Your task to perform on an android device: What's the news in Puerto Rico? Image 0: 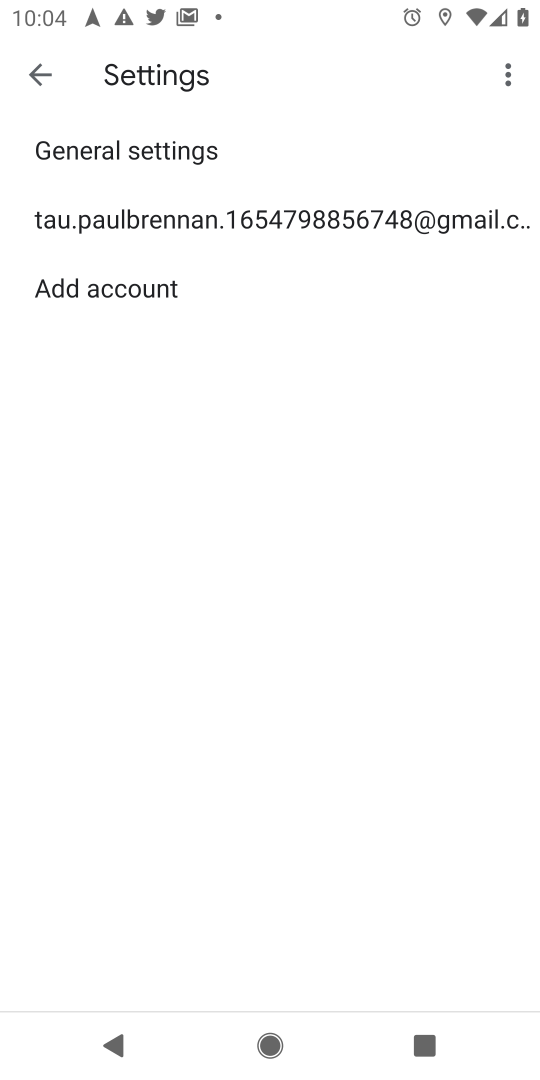
Step 0: press home button
Your task to perform on an android device: What's the news in Puerto Rico? Image 1: 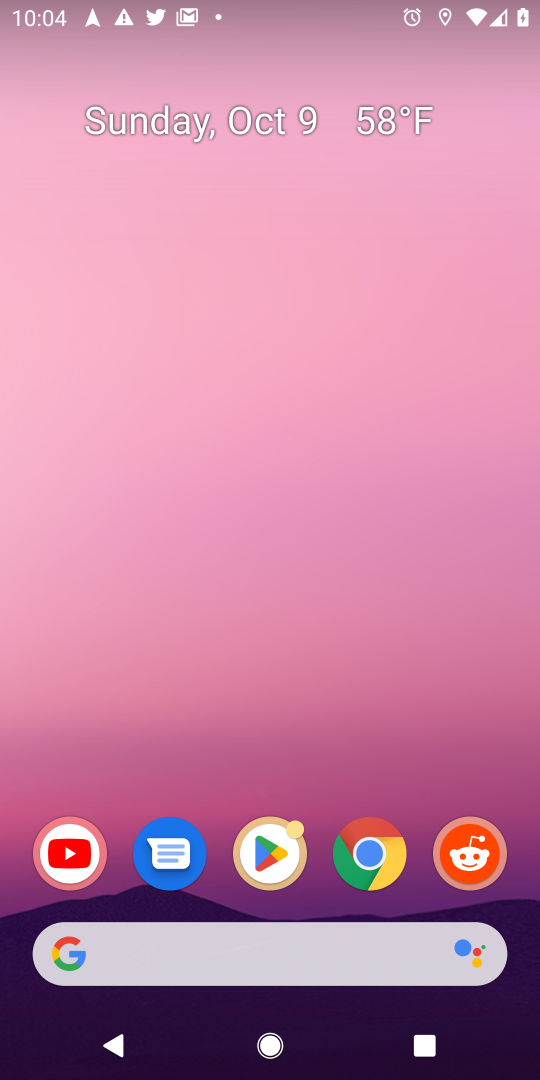
Step 1: click (363, 855)
Your task to perform on an android device: What's the news in Puerto Rico? Image 2: 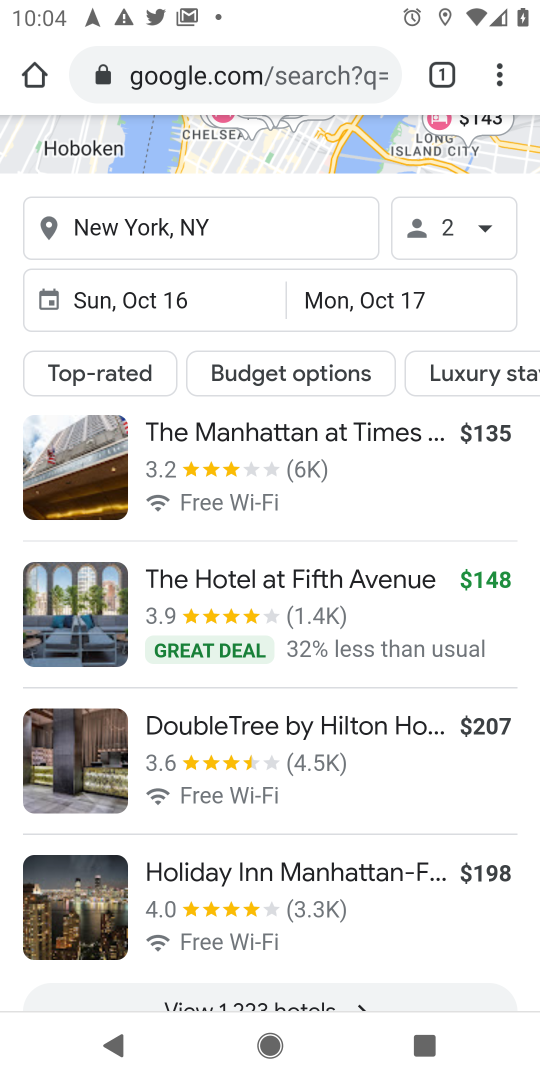
Step 2: click (269, 66)
Your task to perform on an android device: What's the news in Puerto Rico? Image 3: 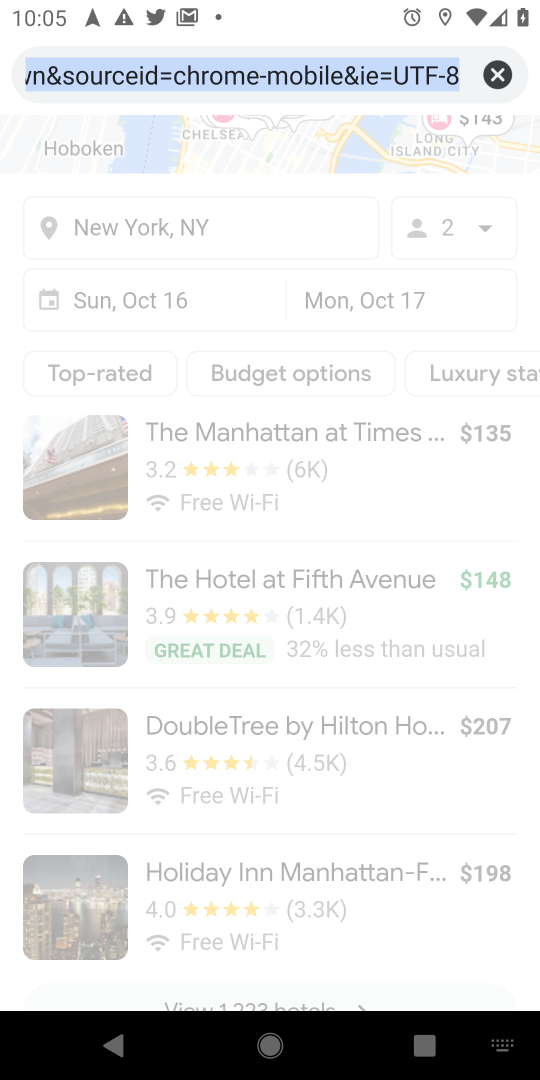
Step 3: type "news in puerto rico"
Your task to perform on an android device: What's the news in Puerto Rico? Image 4: 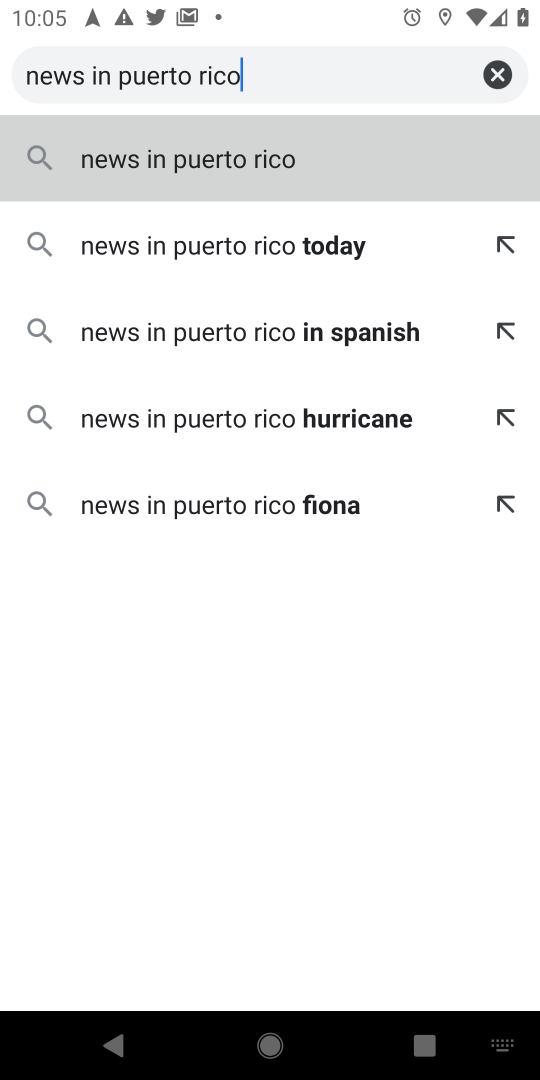
Step 4: click (230, 161)
Your task to perform on an android device: What's the news in Puerto Rico? Image 5: 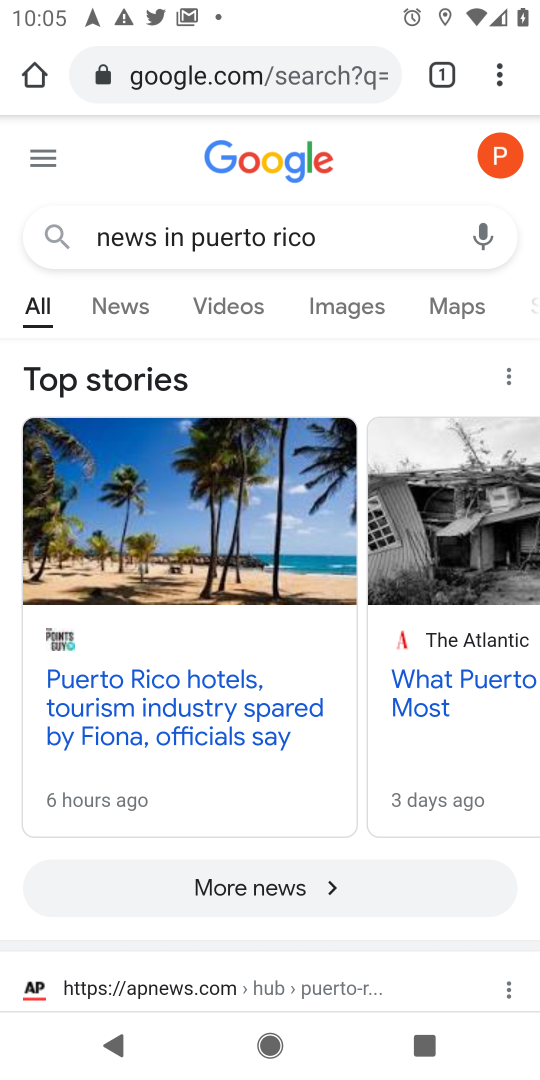
Step 5: click (117, 314)
Your task to perform on an android device: What's the news in Puerto Rico? Image 6: 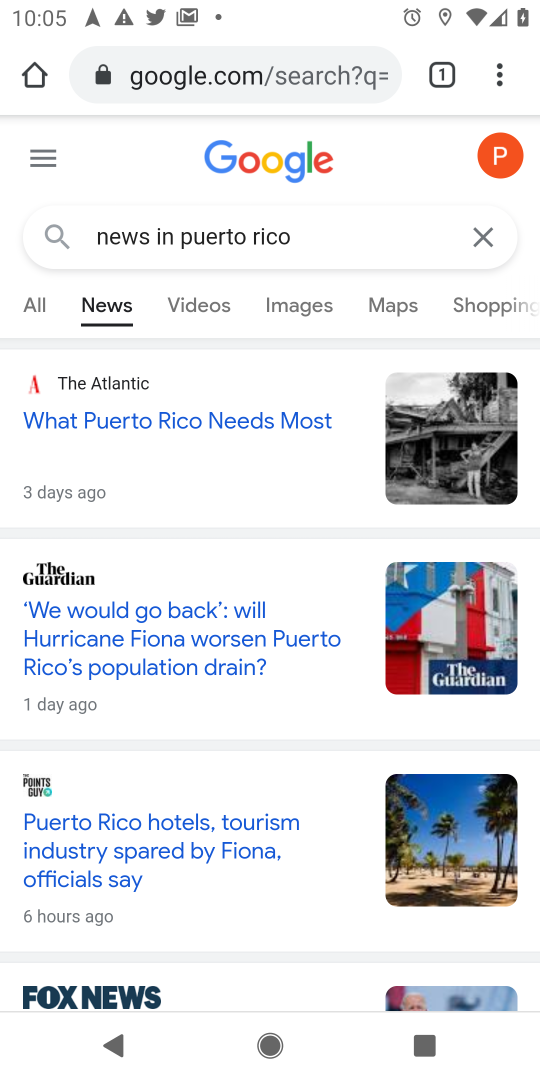
Step 6: task complete